Your task to perform on an android device: Open Chrome and go to the settings page Image 0: 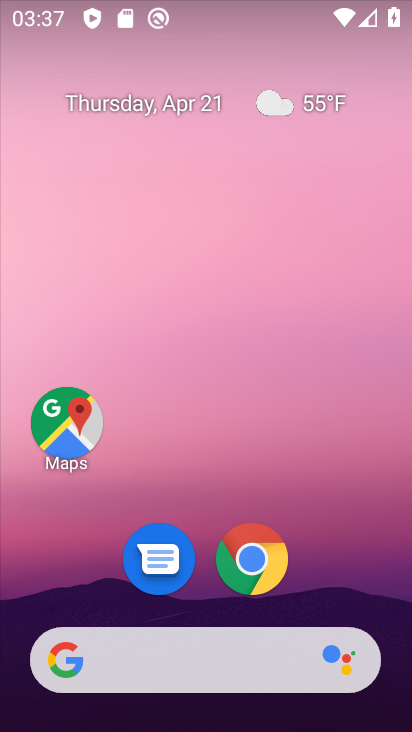
Step 0: click (272, 554)
Your task to perform on an android device: Open Chrome and go to the settings page Image 1: 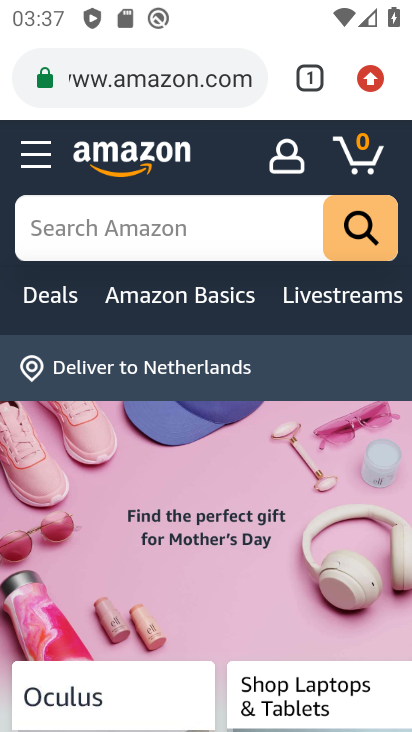
Step 1: click (372, 81)
Your task to perform on an android device: Open Chrome and go to the settings page Image 2: 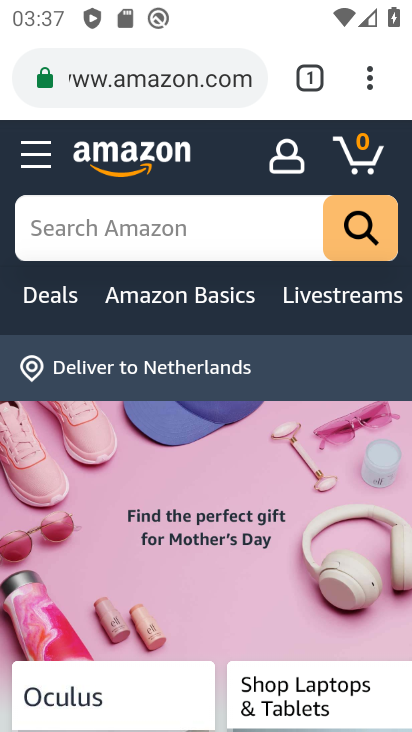
Step 2: click (364, 86)
Your task to perform on an android device: Open Chrome and go to the settings page Image 3: 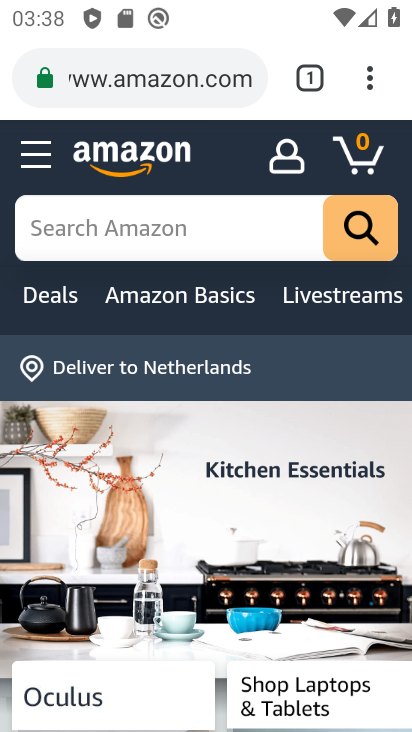
Step 3: click (364, 86)
Your task to perform on an android device: Open Chrome and go to the settings page Image 4: 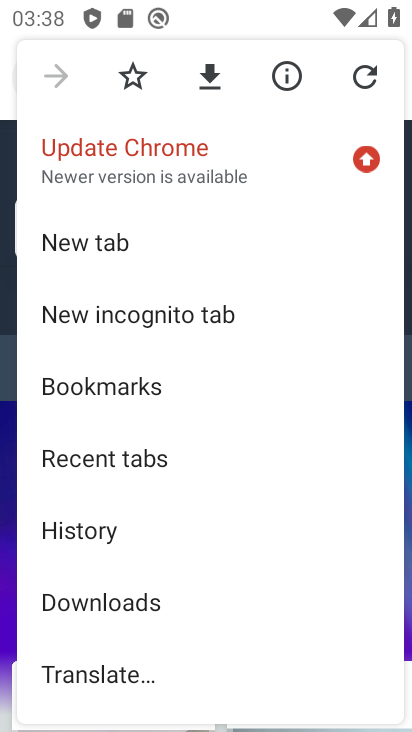
Step 4: drag from (228, 658) to (218, 255)
Your task to perform on an android device: Open Chrome and go to the settings page Image 5: 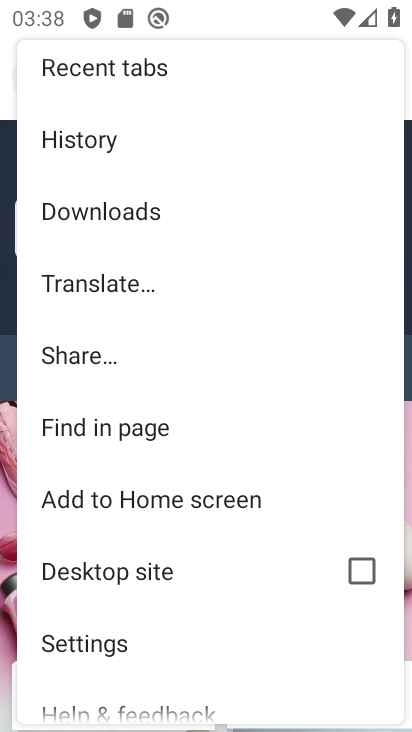
Step 5: click (128, 642)
Your task to perform on an android device: Open Chrome and go to the settings page Image 6: 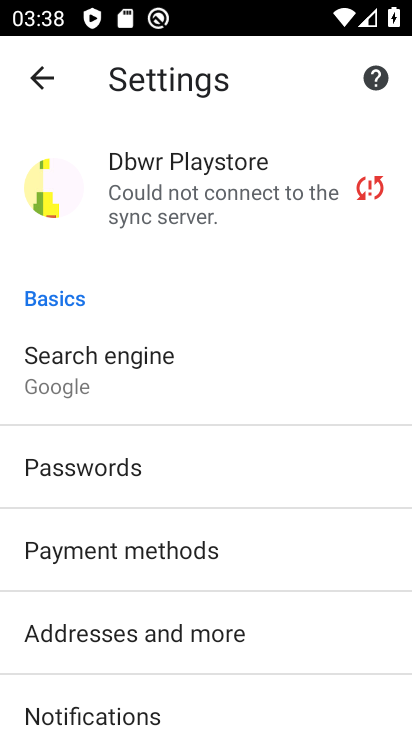
Step 6: task complete